Your task to perform on an android device: change keyboard looks Image 0: 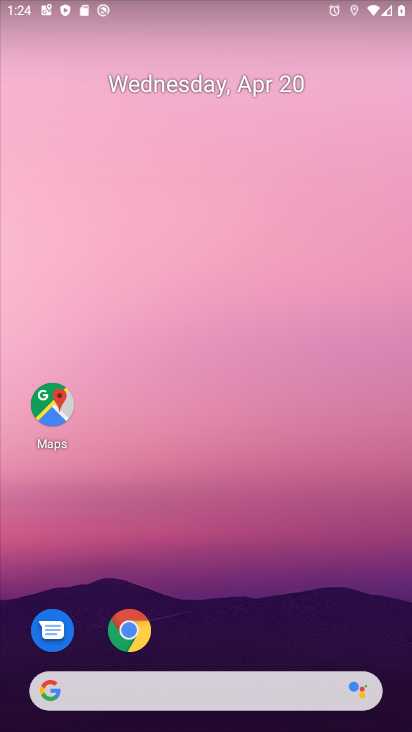
Step 0: drag from (215, 616) to (218, 29)
Your task to perform on an android device: change keyboard looks Image 1: 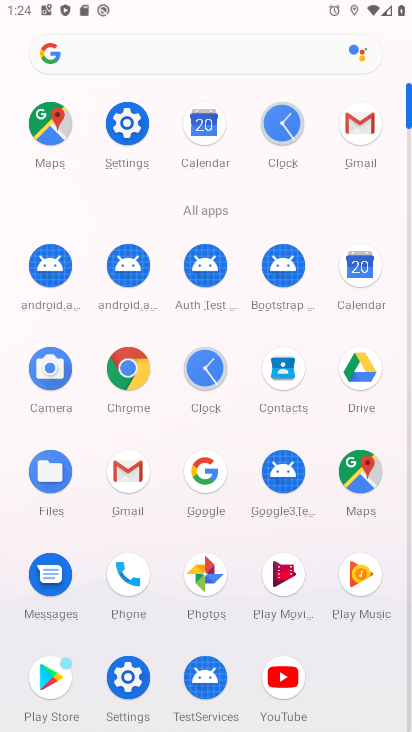
Step 1: click (125, 120)
Your task to perform on an android device: change keyboard looks Image 2: 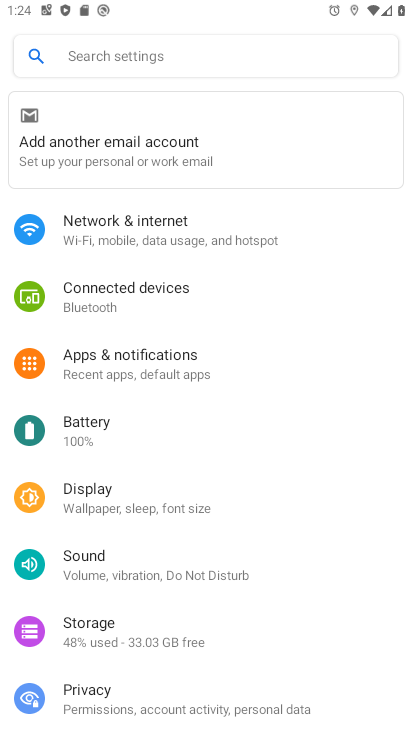
Step 2: drag from (162, 693) to (166, 108)
Your task to perform on an android device: change keyboard looks Image 3: 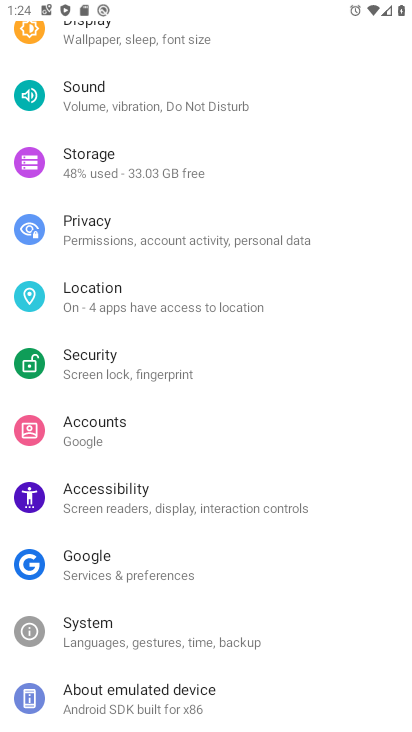
Step 3: click (138, 637)
Your task to perform on an android device: change keyboard looks Image 4: 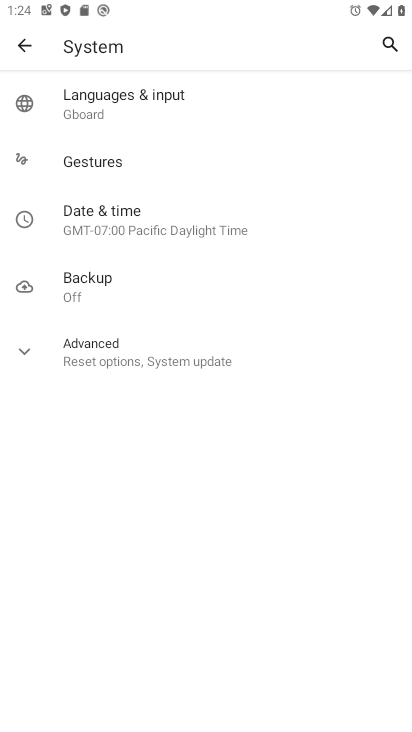
Step 4: click (91, 101)
Your task to perform on an android device: change keyboard looks Image 5: 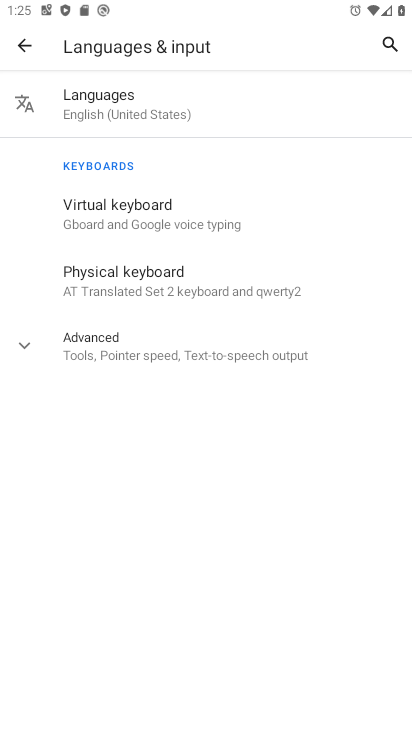
Step 5: click (142, 219)
Your task to perform on an android device: change keyboard looks Image 6: 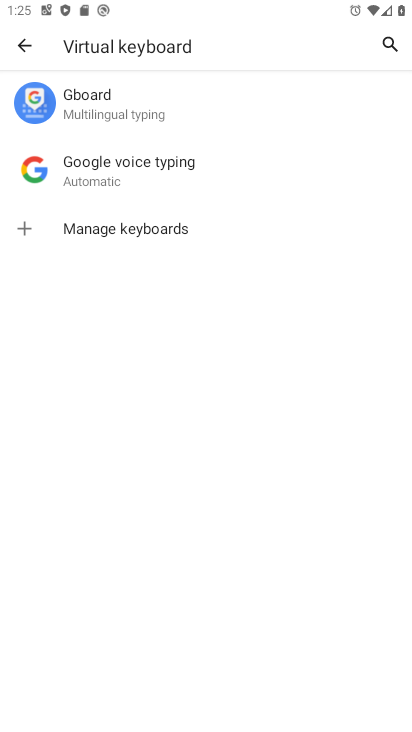
Step 6: click (77, 101)
Your task to perform on an android device: change keyboard looks Image 7: 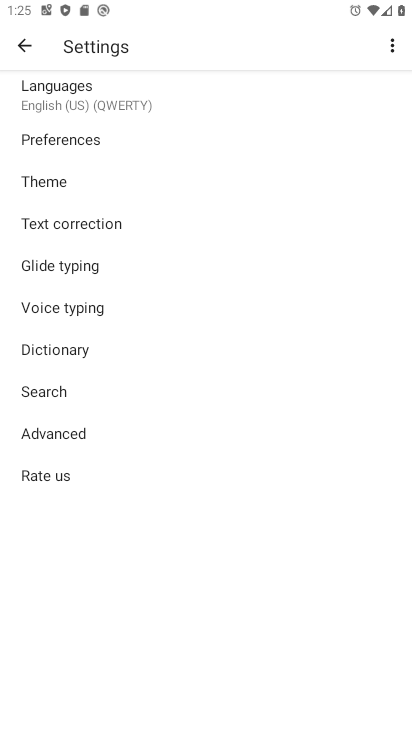
Step 7: click (54, 181)
Your task to perform on an android device: change keyboard looks Image 8: 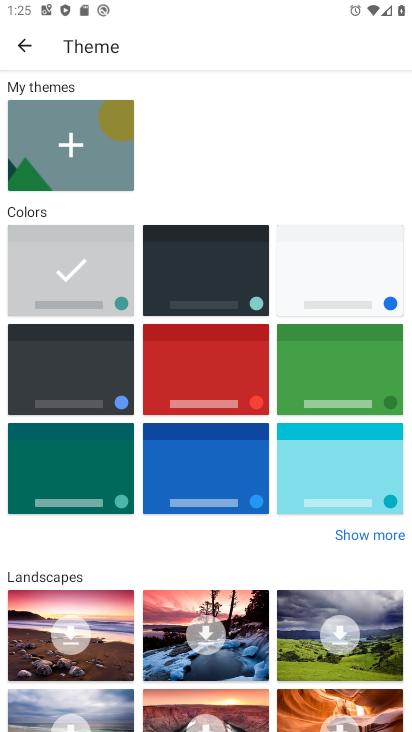
Step 8: click (215, 639)
Your task to perform on an android device: change keyboard looks Image 9: 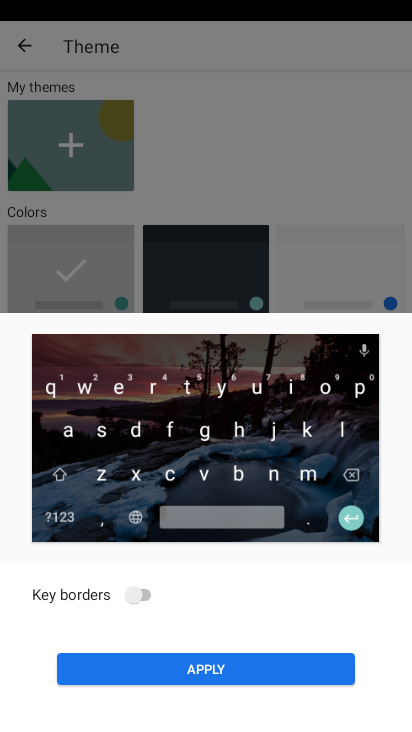
Step 9: click (142, 594)
Your task to perform on an android device: change keyboard looks Image 10: 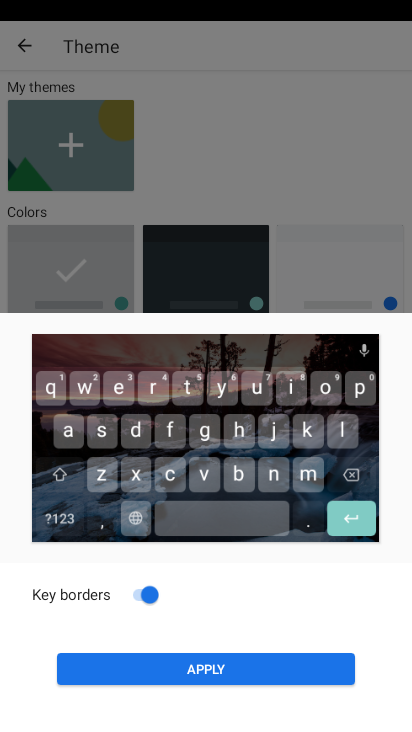
Step 10: click (162, 666)
Your task to perform on an android device: change keyboard looks Image 11: 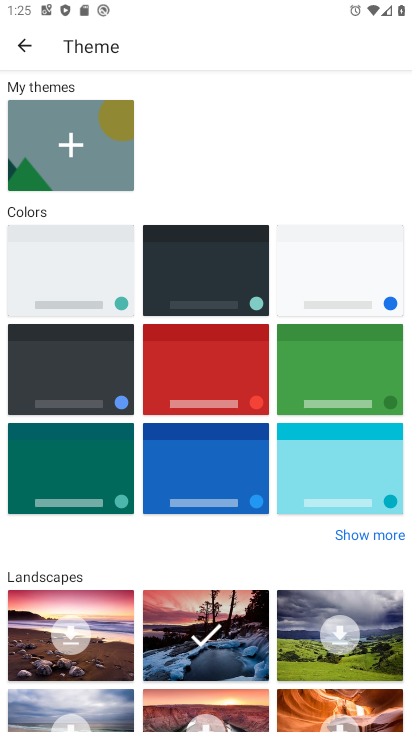
Step 11: task complete